Your task to perform on an android device: Open Wikipedia Image 0: 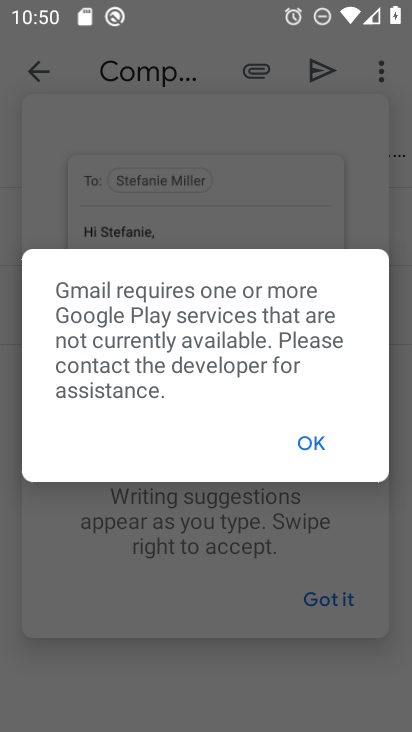
Step 0: press home button
Your task to perform on an android device: Open Wikipedia Image 1: 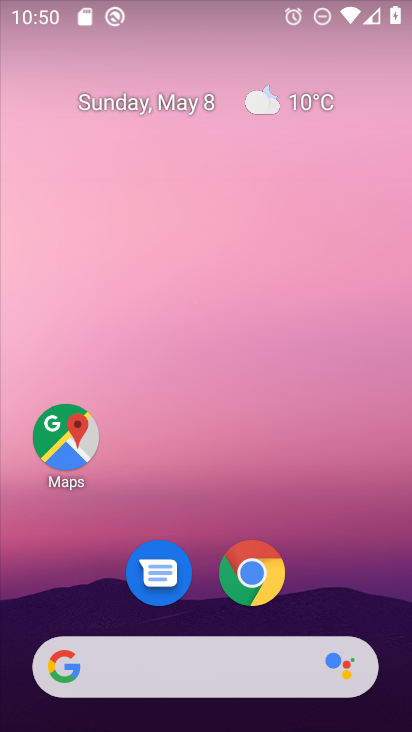
Step 1: click (248, 573)
Your task to perform on an android device: Open Wikipedia Image 2: 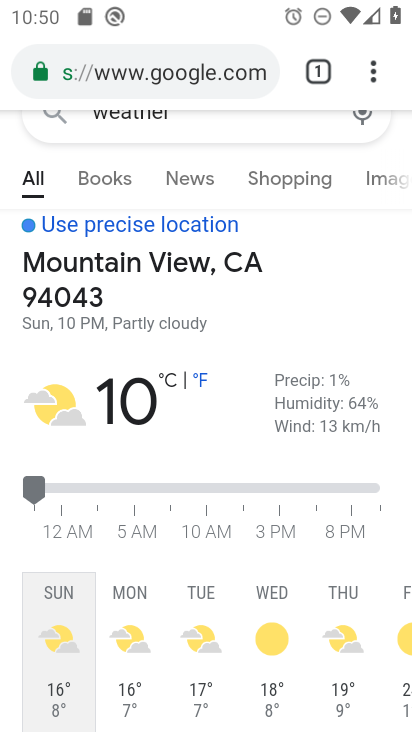
Step 2: drag from (377, 62) to (162, 134)
Your task to perform on an android device: Open Wikipedia Image 3: 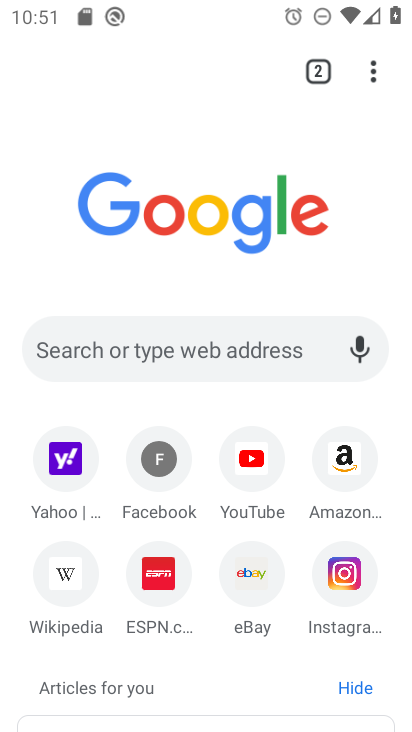
Step 3: click (70, 572)
Your task to perform on an android device: Open Wikipedia Image 4: 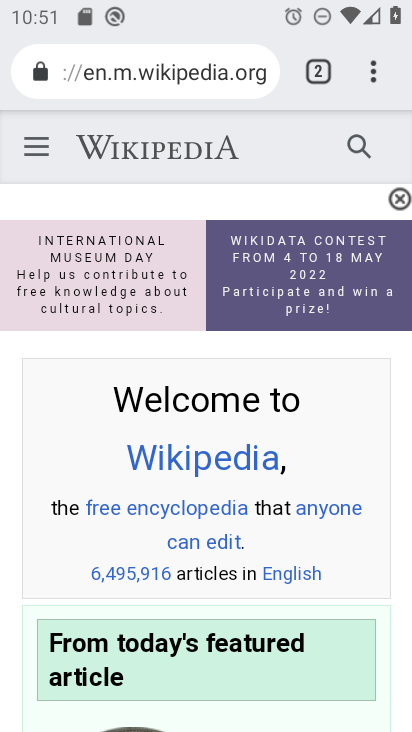
Step 4: task complete